Your task to perform on an android device: all mails in gmail Image 0: 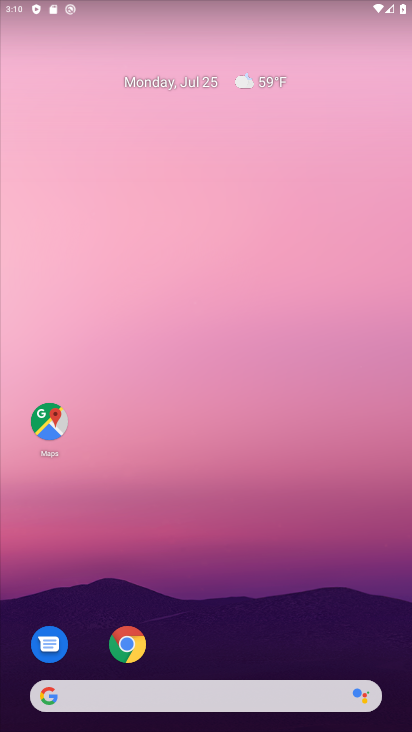
Step 0: drag from (238, 378) to (238, 99)
Your task to perform on an android device: all mails in gmail Image 1: 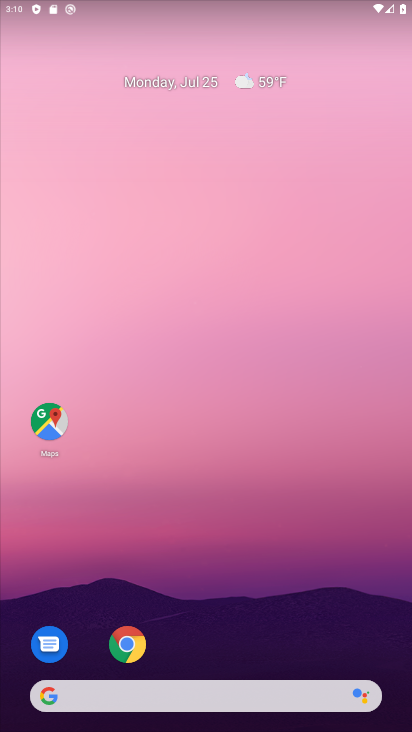
Step 1: drag from (223, 674) to (235, 172)
Your task to perform on an android device: all mails in gmail Image 2: 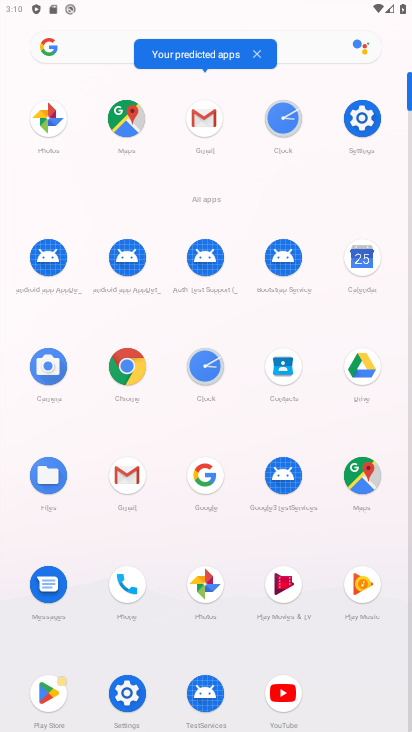
Step 2: click (134, 476)
Your task to perform on an android device: all mails in gmail Image 3: 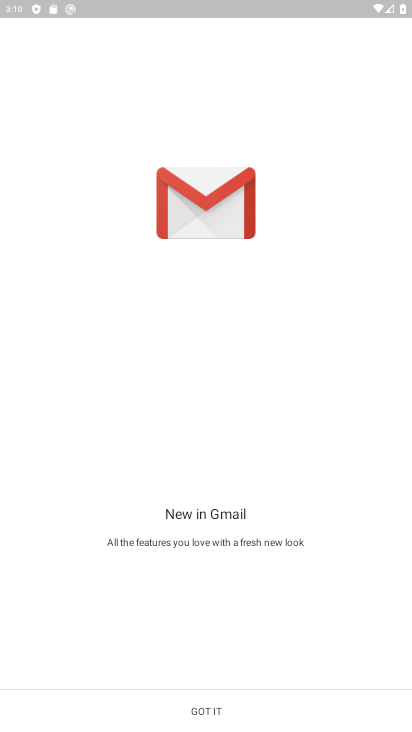
Step 3: click (203, 705)
Your task to perform on an android device: all mails in gmail Image 4: 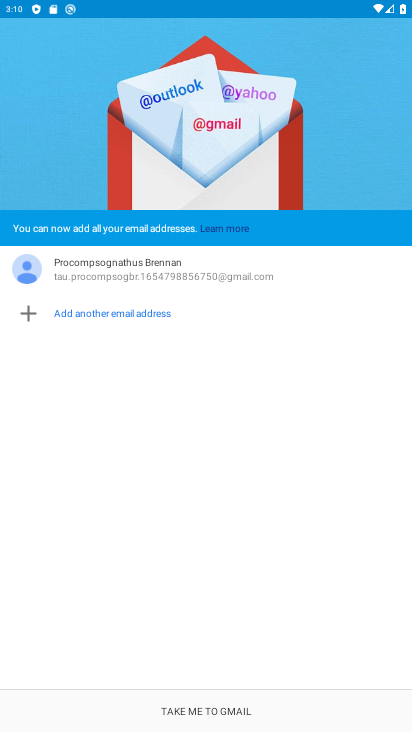
Step 4: click (192, 710)
Your task to perform on an android device: all mails in gmail Image 5: 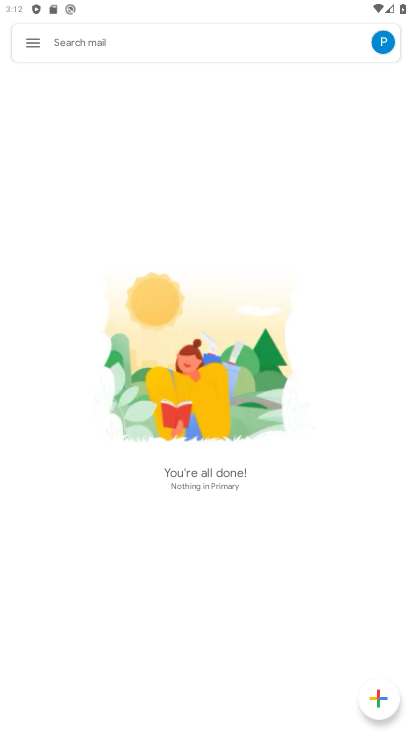
Step 5: click (31, 46)
Your task to perform on an android device: all mails in gmail Image 6: 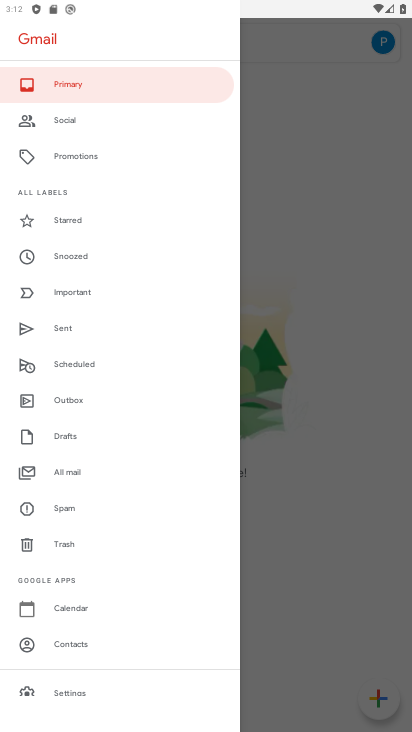
Step 6: click (71, 471)
Your task to perform on an android device: all mails in gmail Image 7: 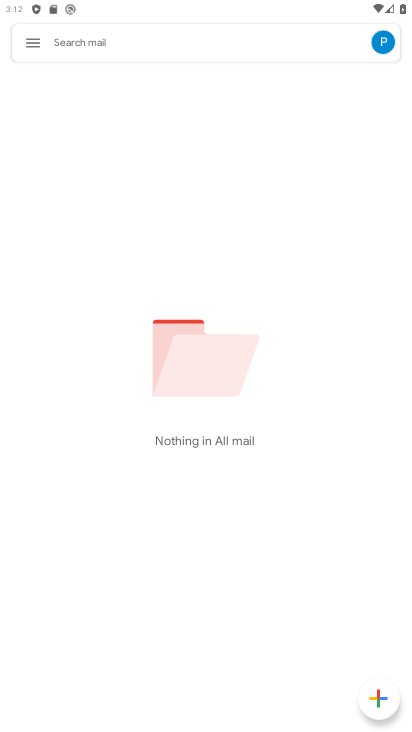
Step 7: task complete